Your task to perform on an android device: turn on notifications settings in the gmail app Image 0: 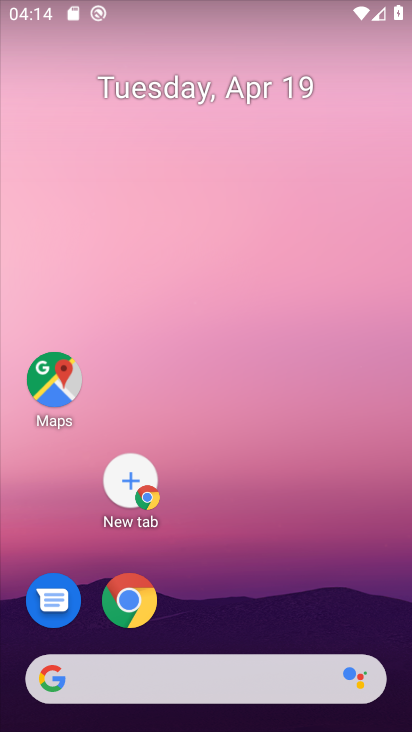
Step 0: drag from (223, 645) to (187, 124)
Your task to perform on an android device: turn on notifications settings in the gmail app Image 1: 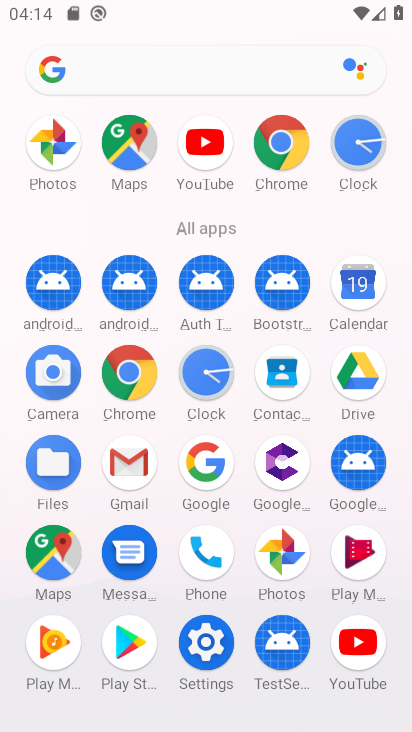
Step 1: click (113, 452)
Your task to perform on an android device: turn on notifications settings in the gmail app Image 2: 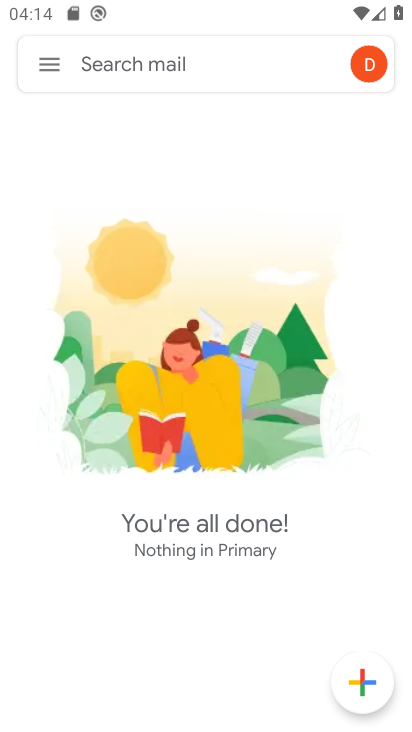
Step 2: click (49, 61)
Your task to perform on an android device: turn on notifications settings in the gmail app Image 3: 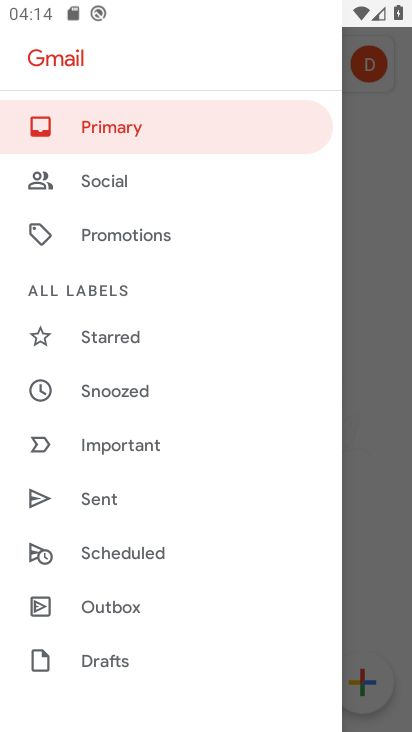
Step 3: drag from (130, 606) to (106, 153)
Your task to perform on an android device: turn on notifications settings in the gmail app Image 4: 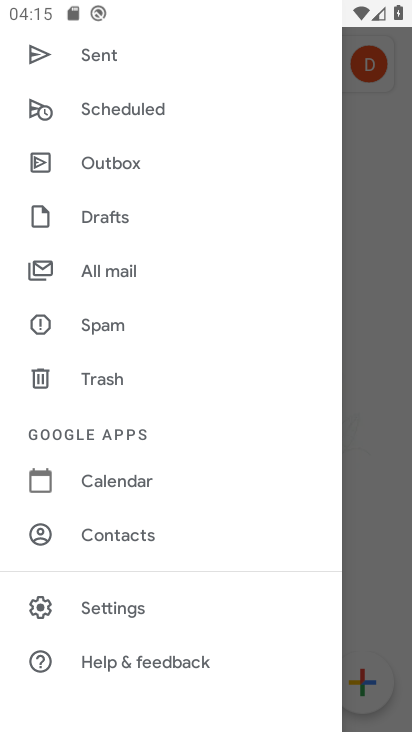
Step 4: click (105, 602)
Your task to perform on an android device: turn on notifications settings in the gmail app Image 5: 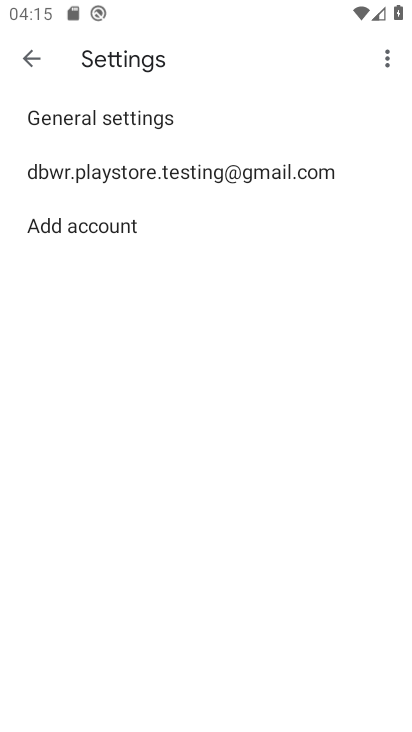
Step 5: click (168, 176)
Your task to perform on an android device: turn on notifications settings in the gmail app Image 6: 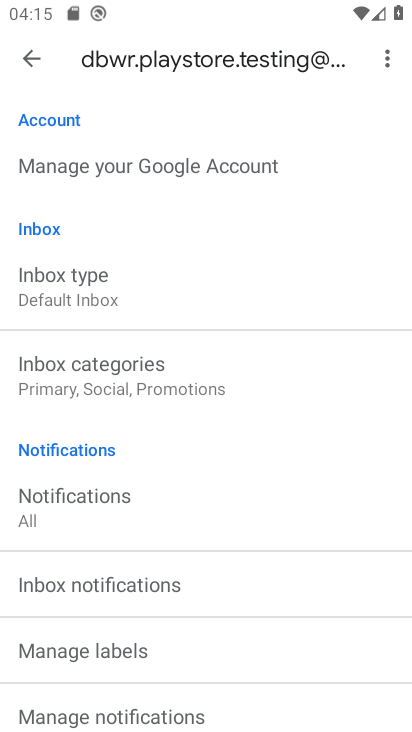
Step 6: drag from (218, 510) to (252, 107)
Your task to perform on an android device: turn on notifications settings in the gmail app Image 7: 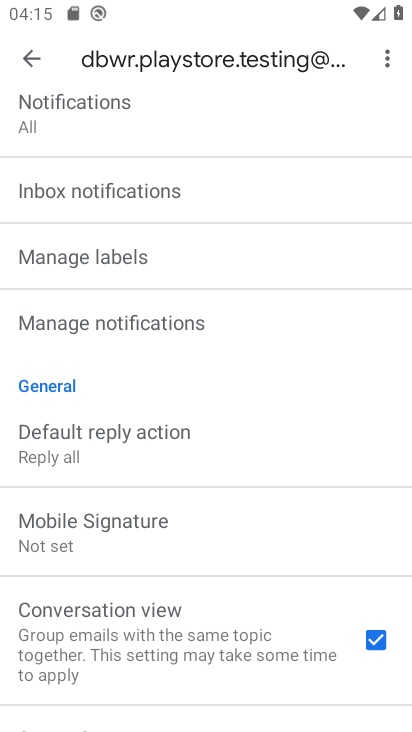
Step 7: drag from (244, 570) to (256, 62)
Your task to perform on an android device: turn on notifications settings in the gmail app Image 8: 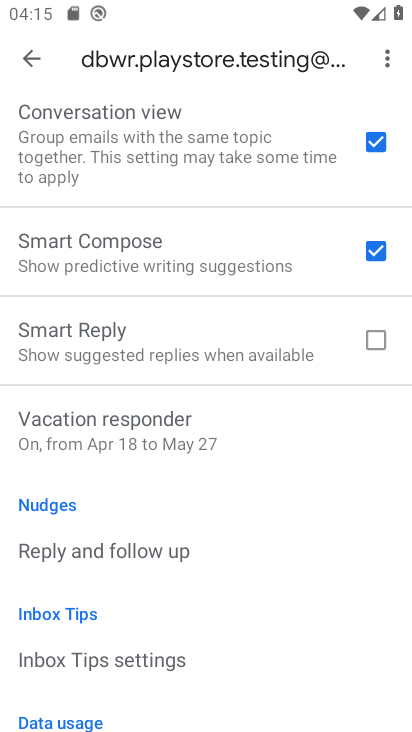
Step 8: drag from (177, 109) to (177, 602)
Your task to perform on an android device: turn on notifications settings in the gmail app Image 9: 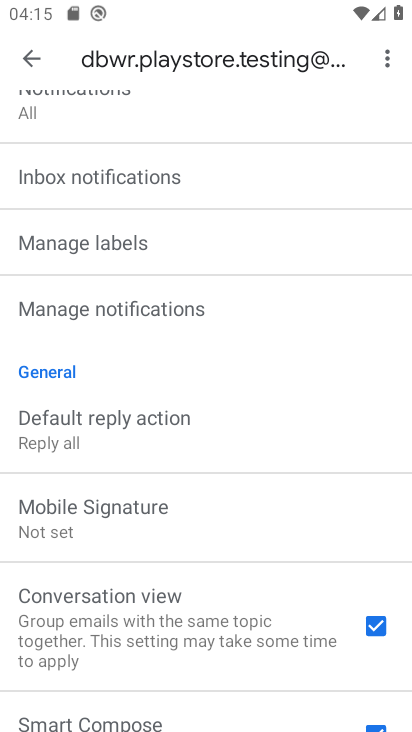
Step 9: drag from (147, 141) to (207, 540)
Your task to perform on an android device: turn on notifications settings in the gmail app Image 10: 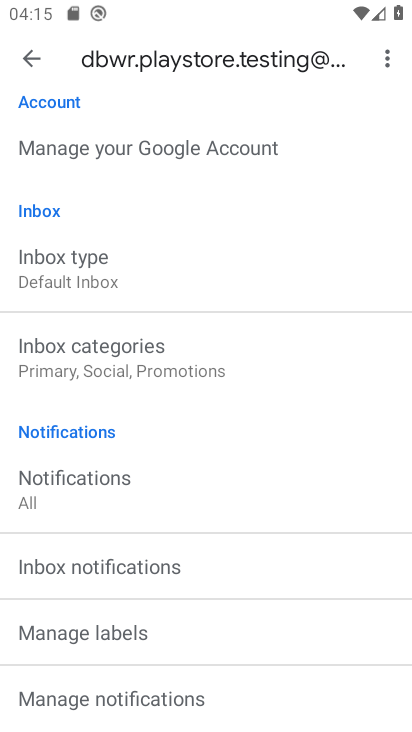
Step 10: click (121, 508)
Your task to perform on an android device: turn on notifications settings in the gmail app Image 11: 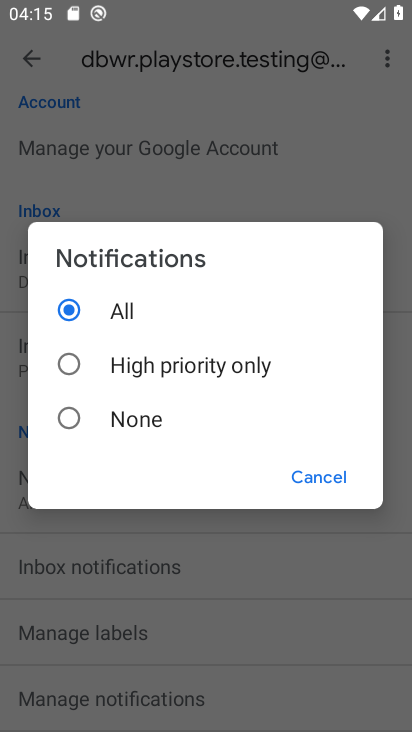
Step 11: task complete